Your task to perform on an android device: toggle airplane mode Image 0: 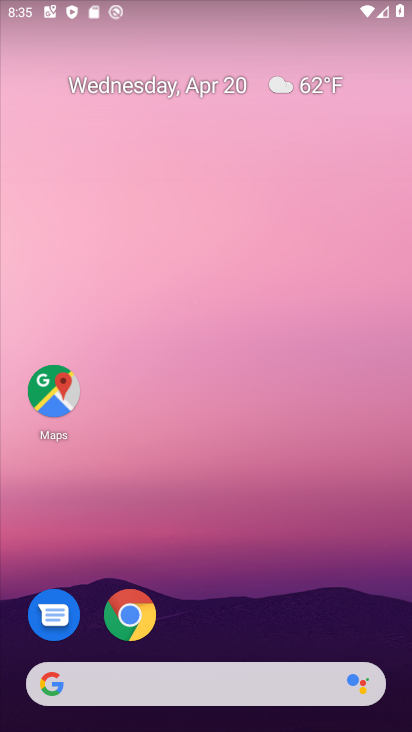
Step 0: drag from (156, 674) to (310, 105)
Your task to perform on an android device: toggle airplane mode Image 1: 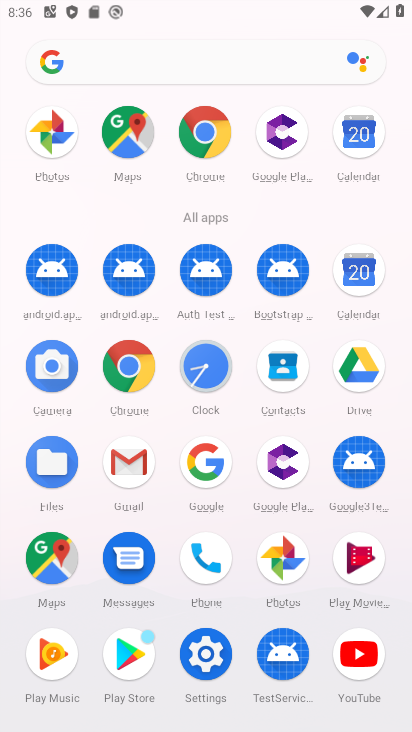
Step 1: click (208, 651)
Your task to perform on an android device: toggle airplane mode Image 2: 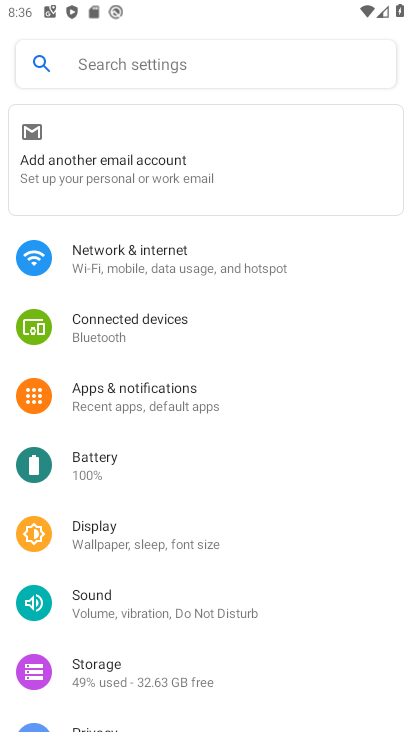
Step 2: click (174, 254)
Your task to perform on an android device: toggle airplane mode Image 3: 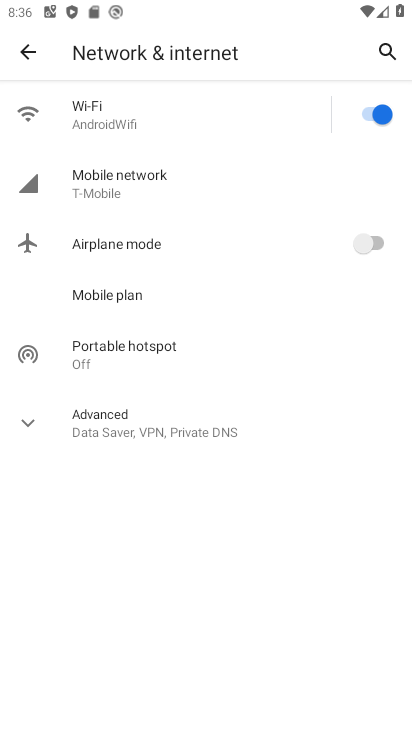
Step 3: click (376, 237)
Your task to perform on an android device: toggle airplane mode Image 4: 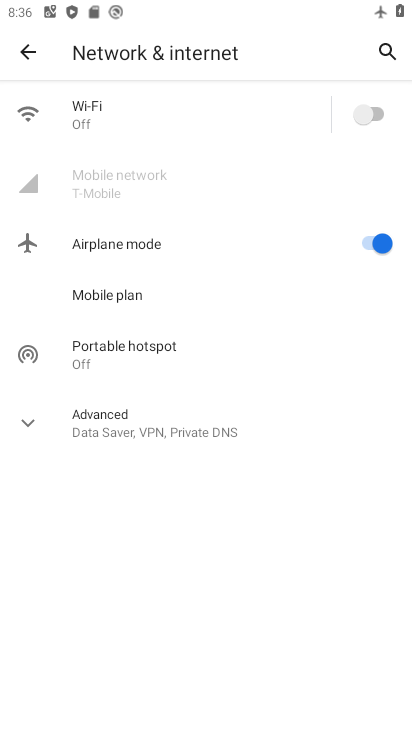
Step 4: task complete